Your task to perform on an android device: Show me the alarms in the clock app Image 0: 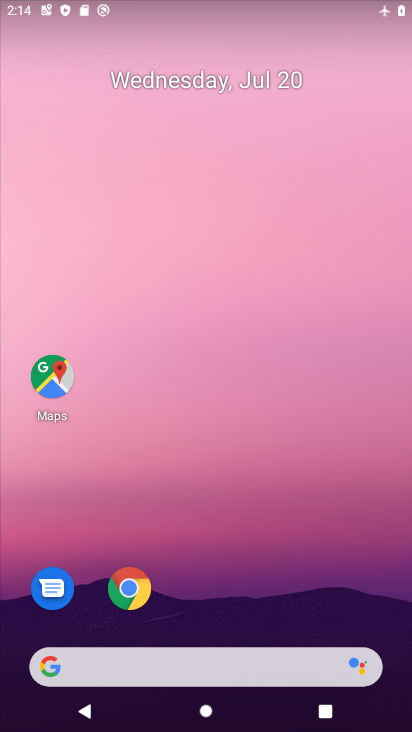
Step 0: drag from (306, 233) to (264, 1)
Your task to perform on an android device: Show me the alarms in the clock app Image 1: 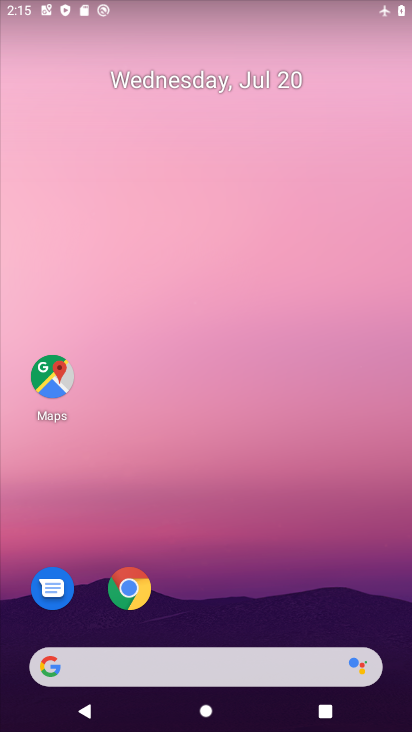
Step 1: drag from (259, 626) to (264, 56)
Your task to perform on an android device: Show me the alarms in the clock app Image 2: 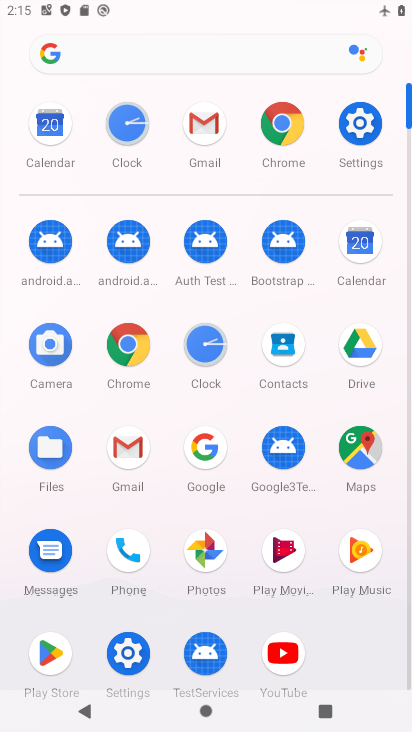
Step 2: click (144, 126)
Your task to perform on an android device: Show me the alarms in the clock app Image 3: 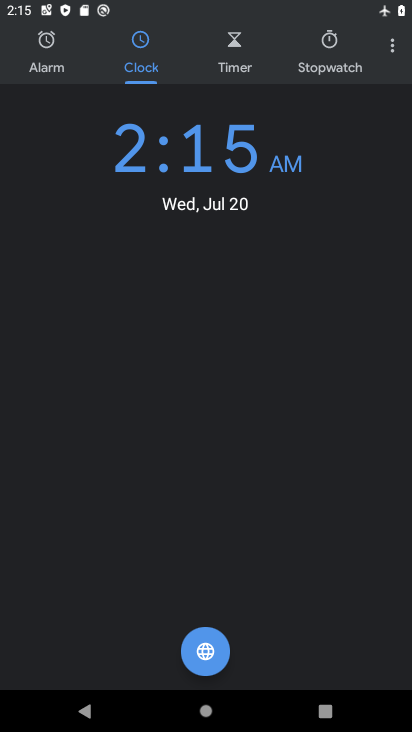
Step 3: click (67, 73)
Your task to perform on an android device: Show me the alarms in the clock app Image 4: 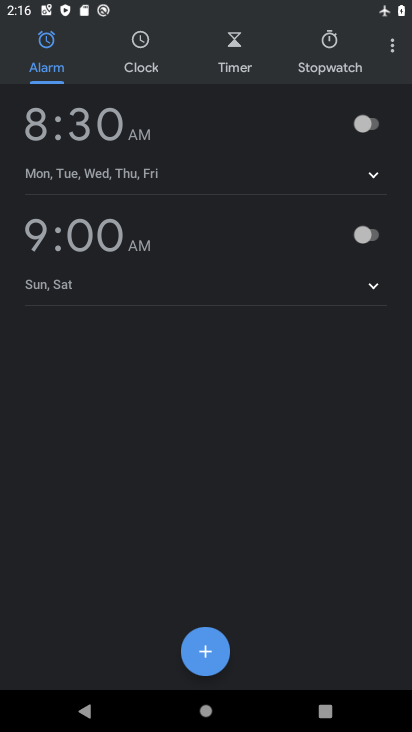
Step 4: task complete